Your task to perform on an android device: create a new album in the google photos Image 0: 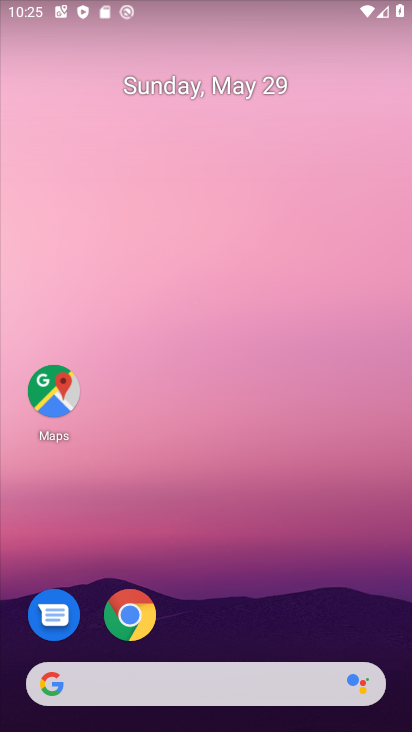
Step 0: drag from (201, 647) to (170, 101)
Your task to perform on an android device: create a new album in the google photos Image 1: 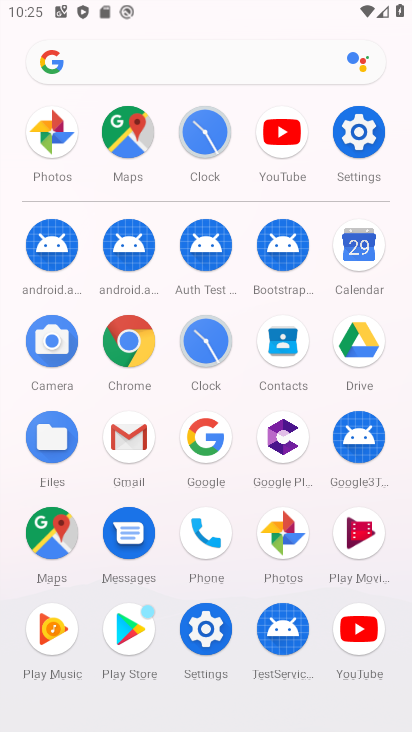
Step 1: click (288, 517)
Your task to perform on an android device: create a new album in the google photos Image 2: 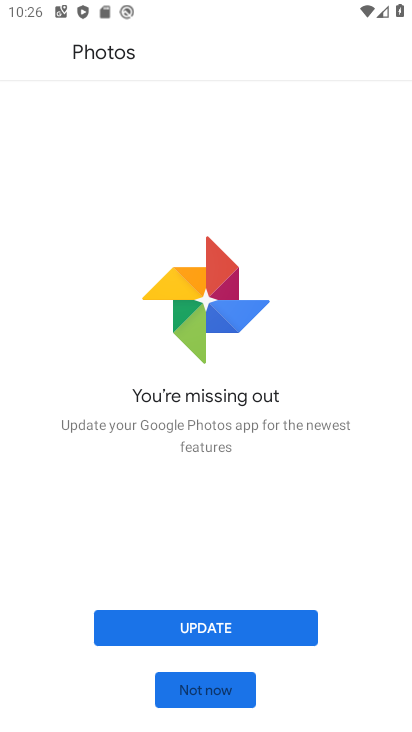
Step 2: click (201, 686)
Your task to perform on an android device: create a new album in the google photos Image 3: 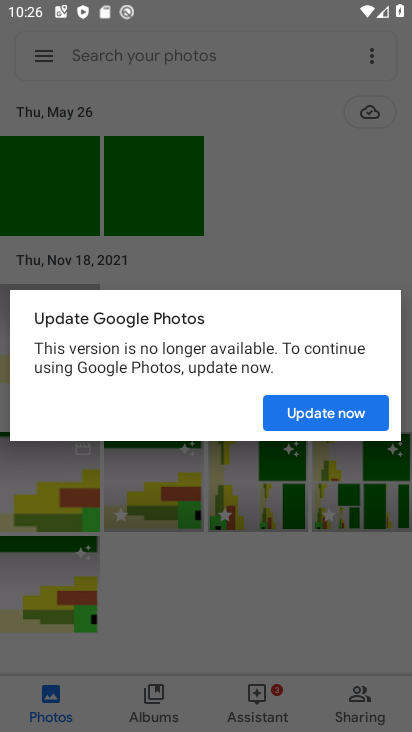
Step 3: click (319, 419)
Your task to perform on an android device: create a new album in the google photos Image 4: 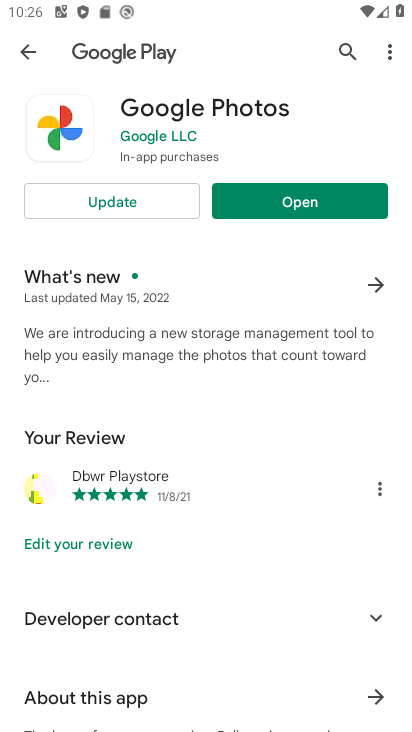
Step 4: click (273, 193)
Your task to perform on an android device: create a new album in the google photos Image 5: 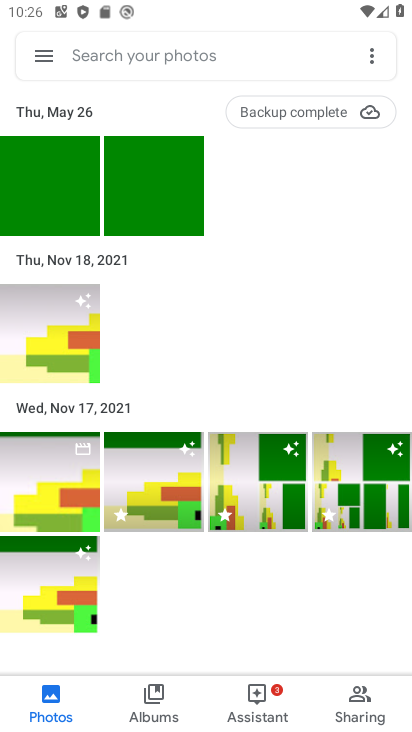
Step 5: click (64, 227)
Your task to perform on an android device: create a new album in the google photos Image 6: 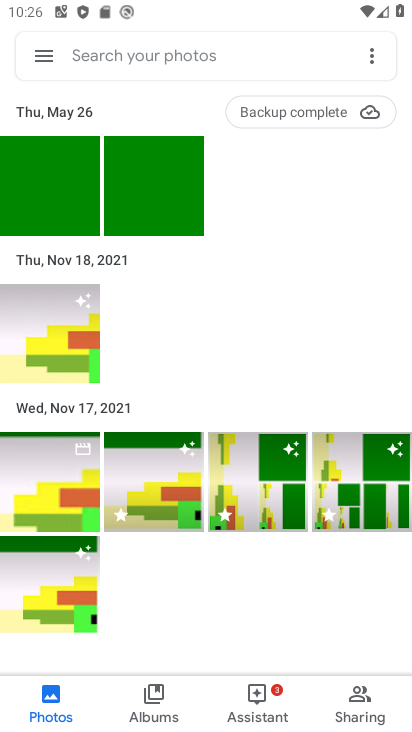
Step 6: click (72, 213)
Your task to perform on an android device: create a new album in the google photos Image 7: 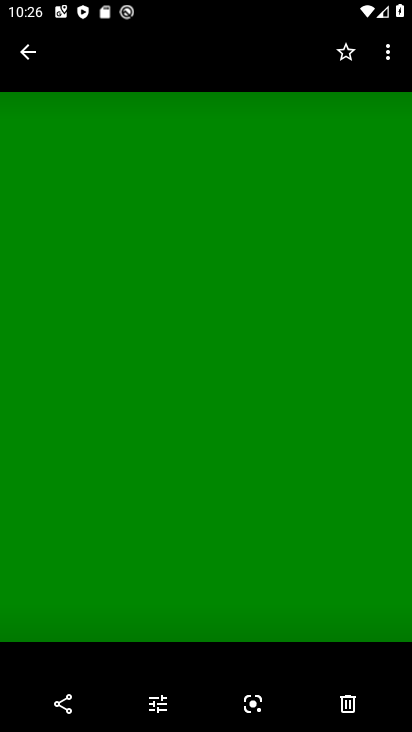
Step 7: click (35, 53)
Your task to perform on an android device: create a new album in the google photos Image 8: 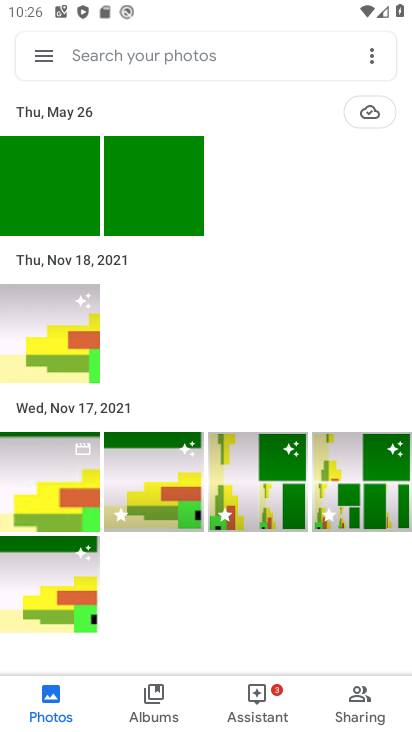
Step 8: click (164, 709)
Your task to perform on an android device: create a new album in the google photos Image 9: 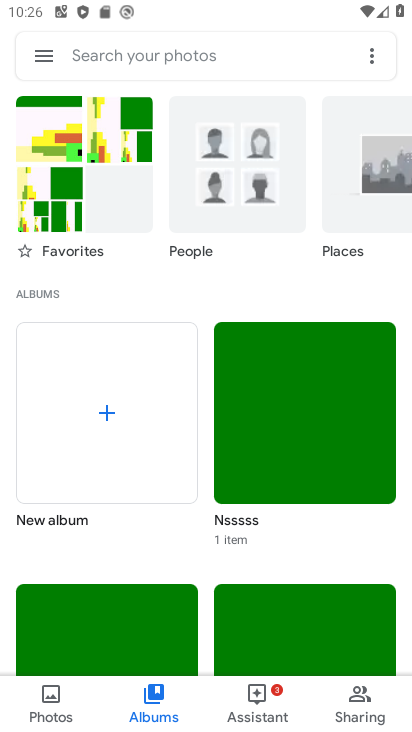
Step 9: click (81, 410)
Your task to perform on an android device: create a new album in the google photos Image 10: 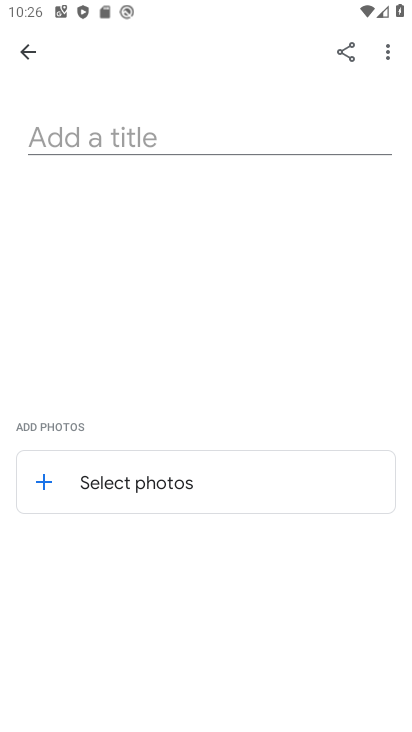
Step 10: click (78, 504)
Your task to perform on an android device: create a new album in the google photos Image 11: 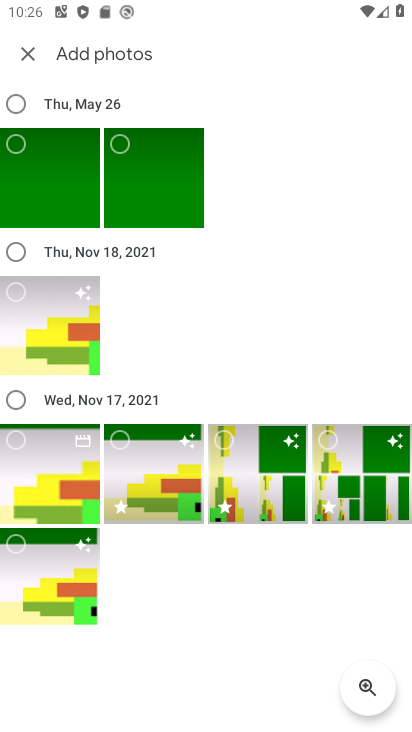
Step 11: click (72, 482)
Your task to perform on an android device: create a new album in the google photos Image 12: 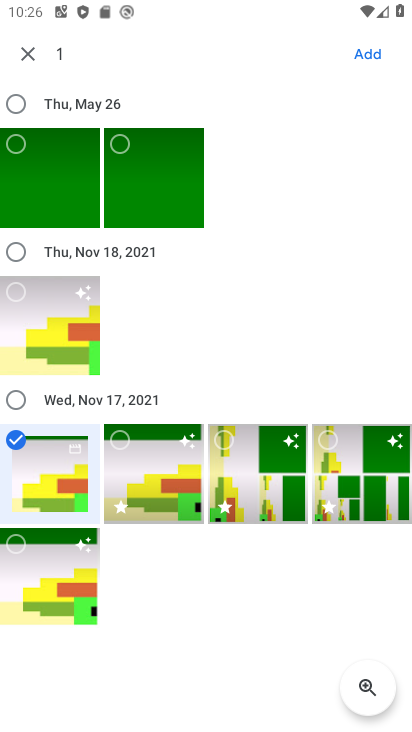
Step 12: click (359, 56)
Your task to perform on an android device: create a new album in the google photos Image 13: 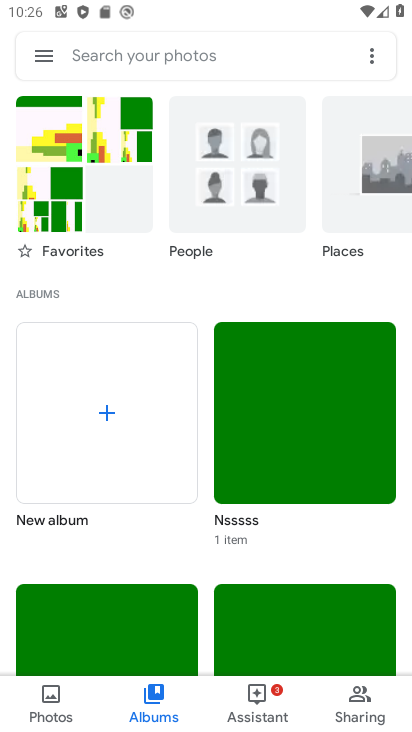
Step 13: task complete